Your task to perform on an android device: check battery use Image 0: 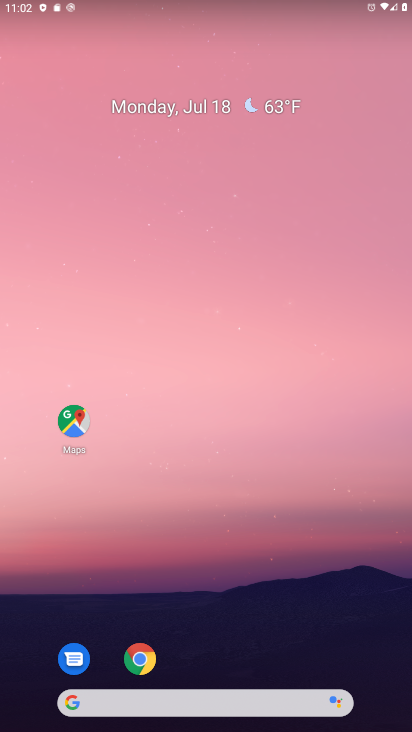
Step 0: drag from (219, 607) to (274, 198)
Your task to perform on an android device: check battery use Image 1: 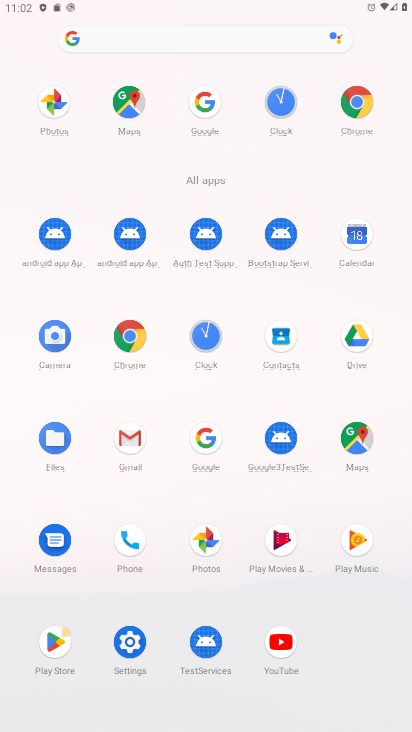
Step 1: click (133, 645)
Your task to perform on an android device: check battery use Image 2: 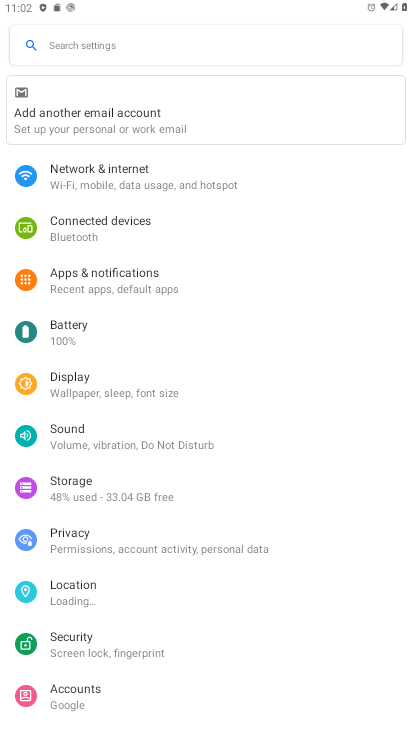
Step 2: click (75, 331)
Your task to perform on an android device: check battery use Image 3: 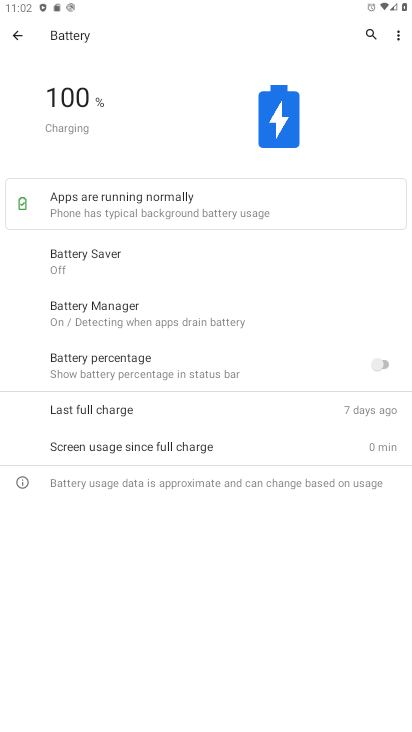
Step 3: click (395, 38)
Your task to perform on an android device: check battery use Image 4: 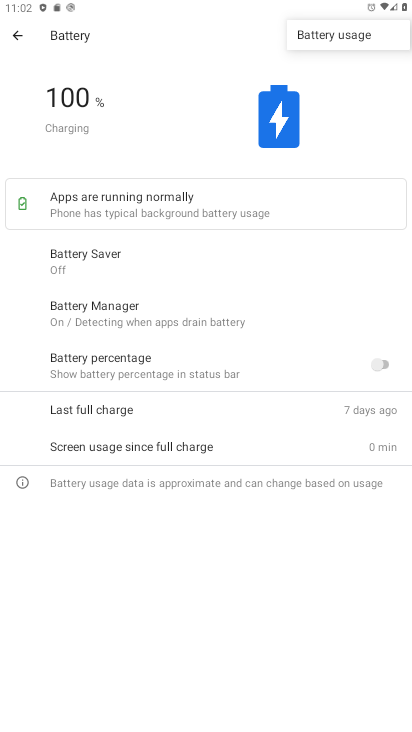
Step 4: click (361, 38)
Your task to perform on an android device: check battery use Image 5: 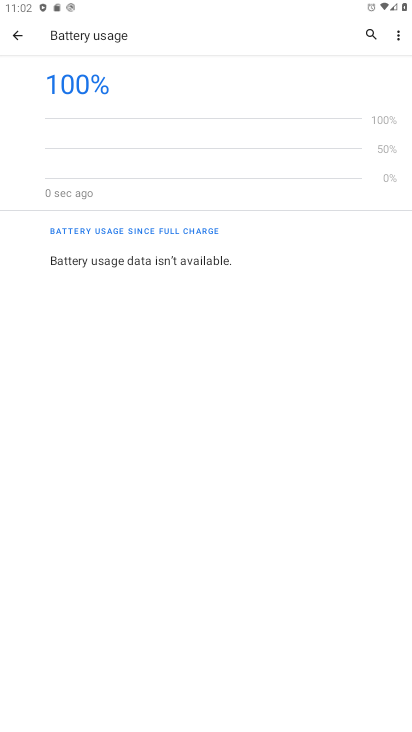
Step 5: task complete